Your task to perform on an android device: Show me productivity apps on the Play Store Image 0: 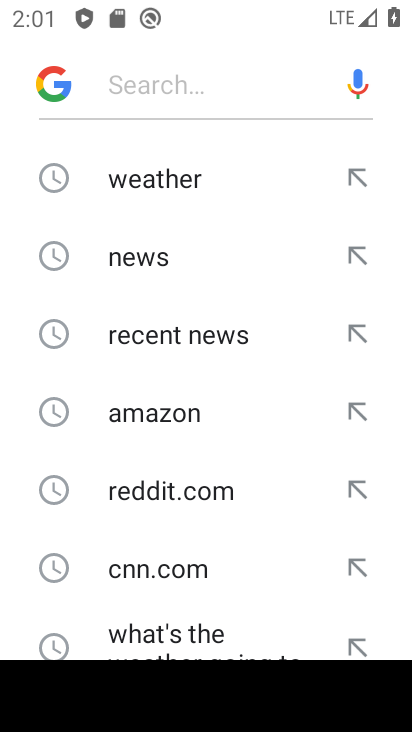
Step 0: press home button
Your task to perform on an android device: Show me productivity apps on the Play Store Image 1: 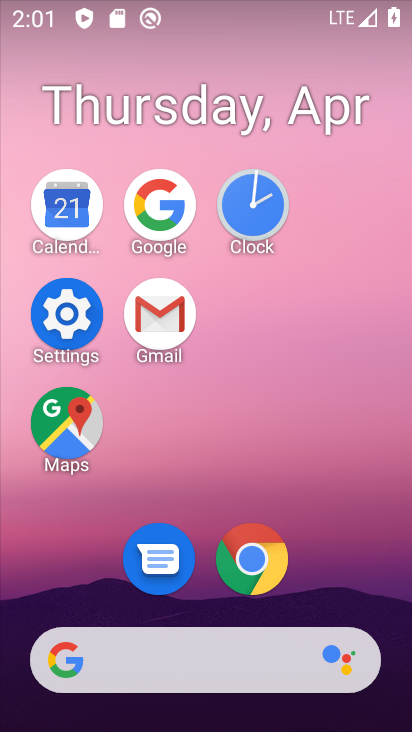
Step 1: drag from (207, 514) to (201, 77)
Your task to perform on an android device: Show me productivity apps on the Play Store Image 2: 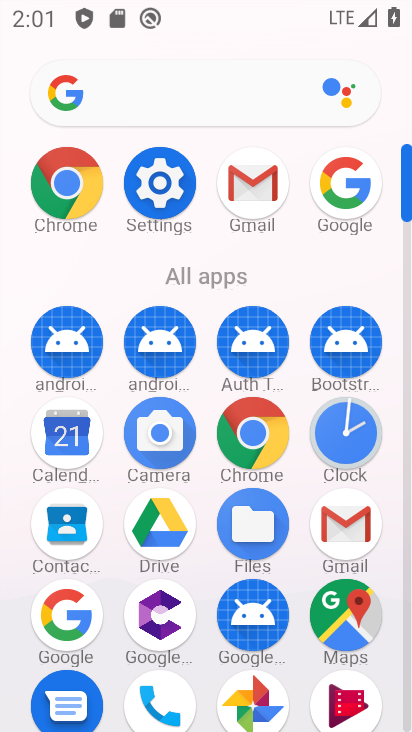
Step 2: drag from (198, 613) to (184, 129)
Your task to perform on an android device: Show me productivity apps on the Play Store Image 3: 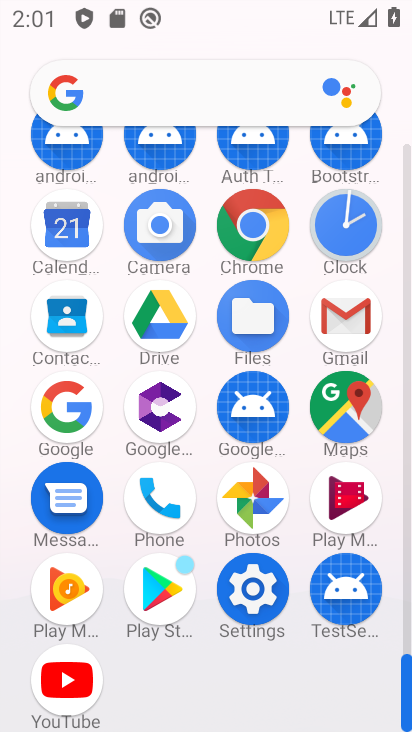
Step 3: click (178, 594)
Your task to perform on an android device: Show me productivity apps on the Play Store Image 4: 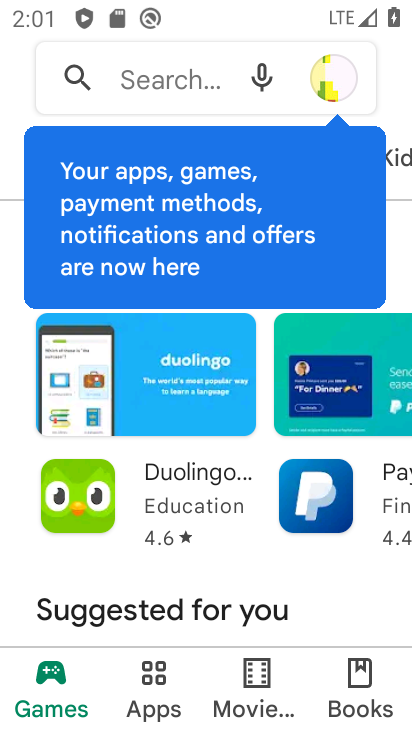
Step 4: click (169, 673)
Your task to perform on an android device: Show me productivity apps on the Play Store Image 5: 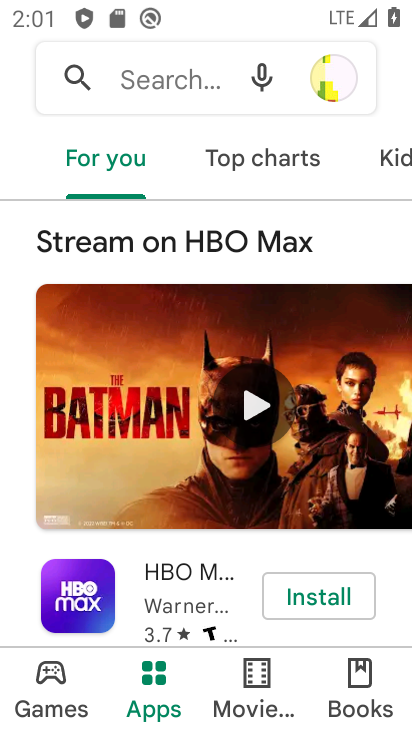
Step 5: drag from (366, 160) to (47, 141)
Your task to perform on an android device: Show me productivity apps on the Play Store Image 6: 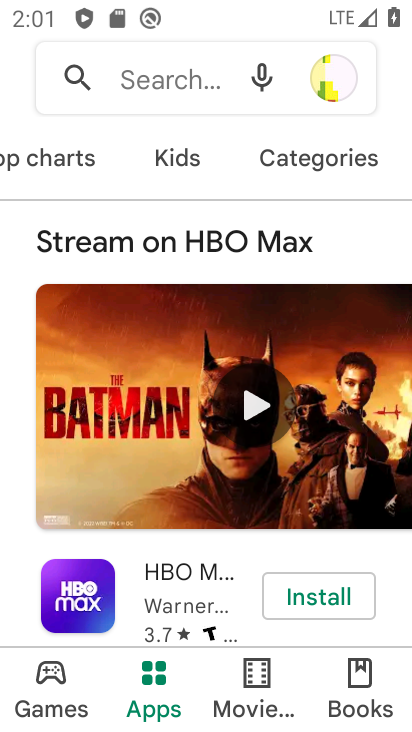
Step 6: click (342, 167)
Your task to perform on an android device: Show me productivity apps on the Play Store Image 7: 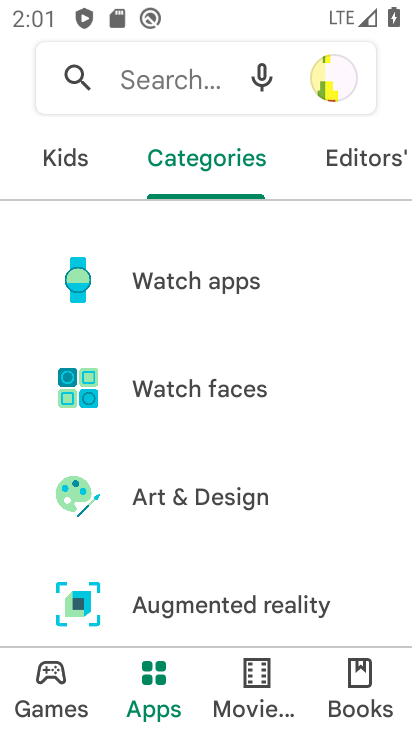
Step 7: drag from (239, 533) to (252, 87)
Your task to perform on an android device: Show me productivity apps on the Play Store Image 8: 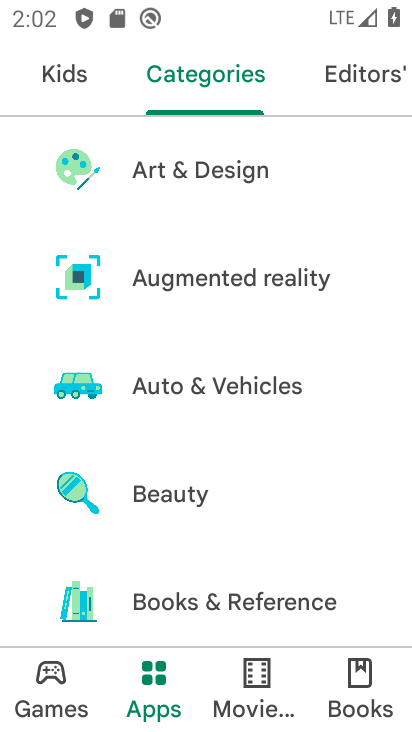
Step 8: drag from (277, 371) to (270, 86)
Your task to perform on an android device: Show me productivity apps on the Play Store Image 9: 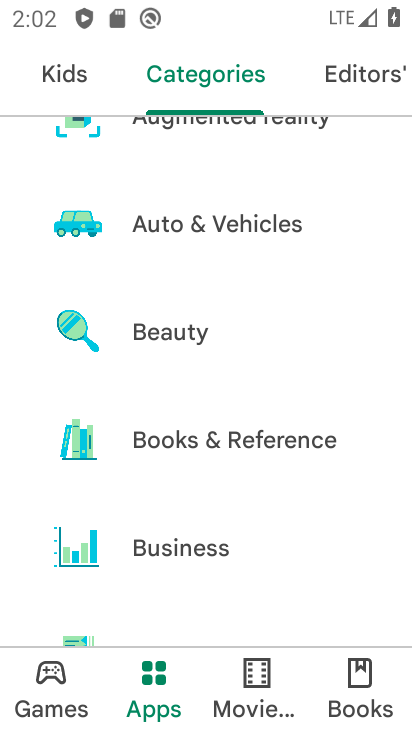
Step 9: drag from (290, 575) to (263, 156)
Your task to perform on an android device: Show me productivity apps on the Play Store Image 10: 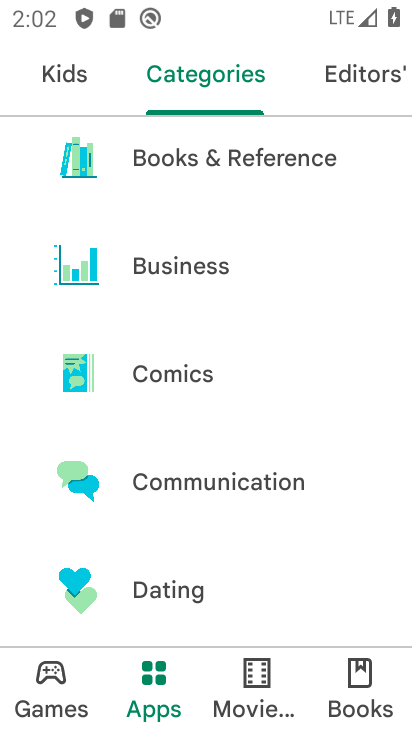
Step 10: drag from (247, 551) to (266, 141)
Your task to perform on an android device: Show me productivity apps on the Play Store Image 11: 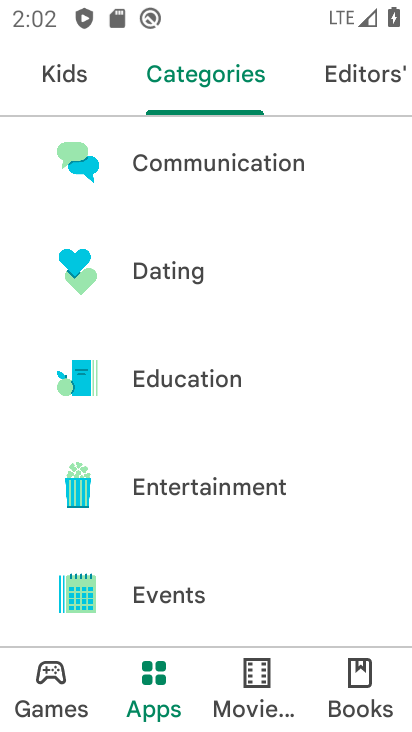
Step 11: drag from (237, 516) to (236, 108)
Your task to perform on an android device: Show me productivity apps on the Play Store Image 12: 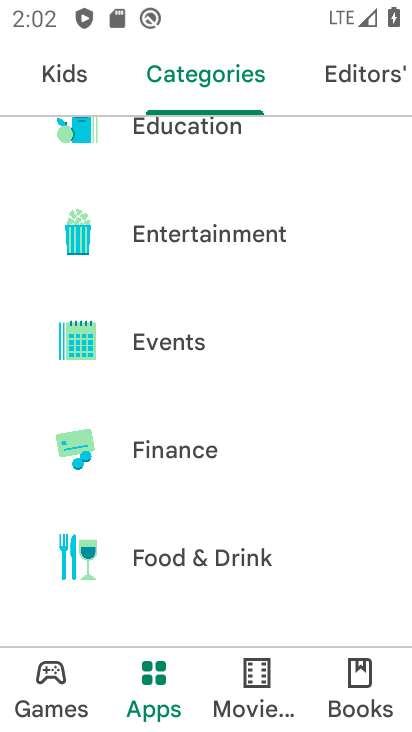
Step 12: drag from (257, 524) to (277, 128)
Your task to perform on an android device: Show me productivity apps on the Play Store Image 13: 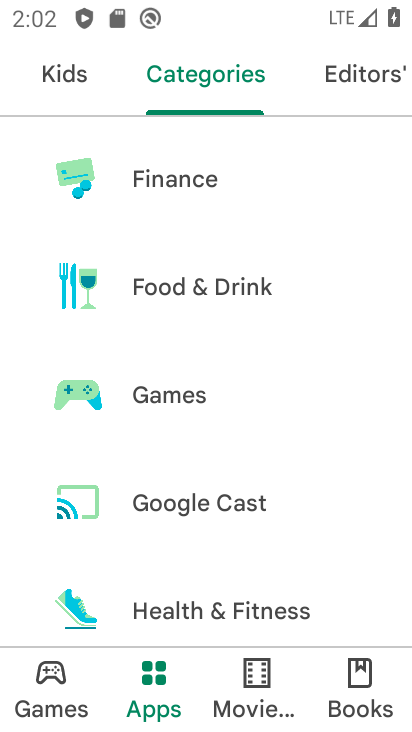
Step 13: drag from (265, 389) to (207, 59)
Your task to perform on an android device: Show me productivity apps on the Play Store Image 14: 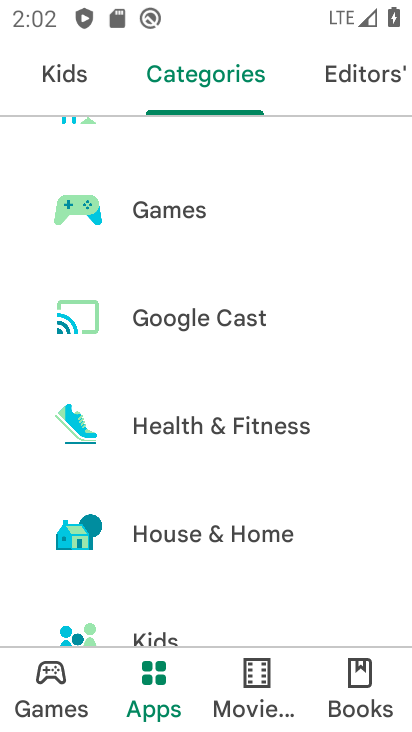
Step 14: drag from (227, 588) to (255, 109)
Your task to perform on an android device: Show me productivity apps on the Play Store Image 15: 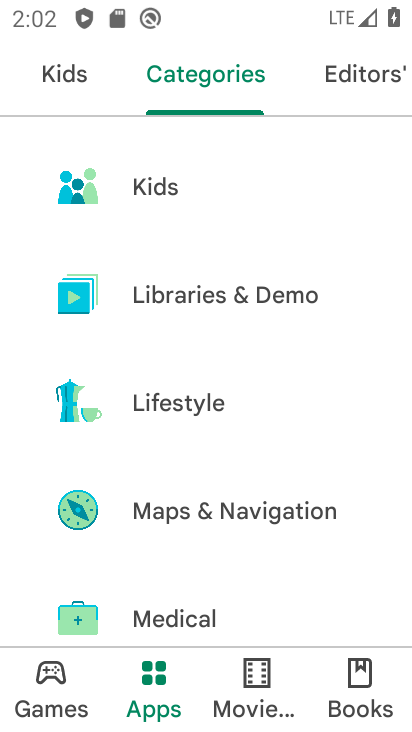
Step 15: drag from (271, 577) to (272, 164)
Your task to perform on an android device: Show me productivity apps on the Play Store Image 16: 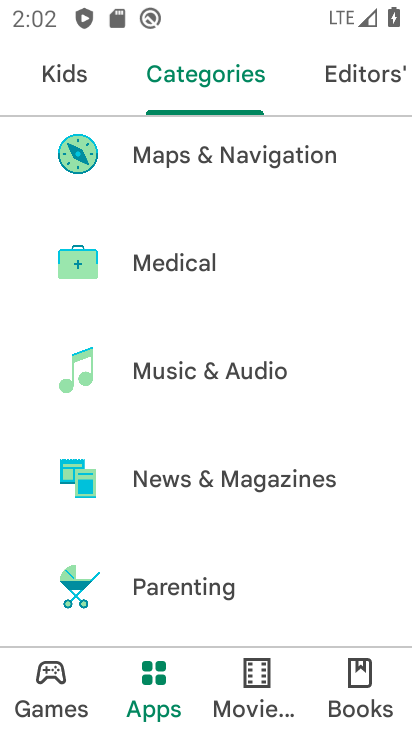
Step 16: drag from (278, 564) to (277, 195)
Your task to perform on an android device: Show me productivity apps on the Play Store Image 17: 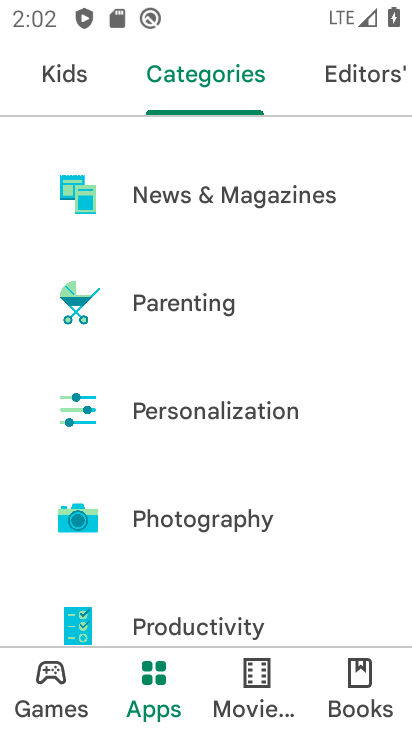
Step 17: click (255, 619)
Your task to perform on an android device: Show me productivity apps on the Play Store Image 18: 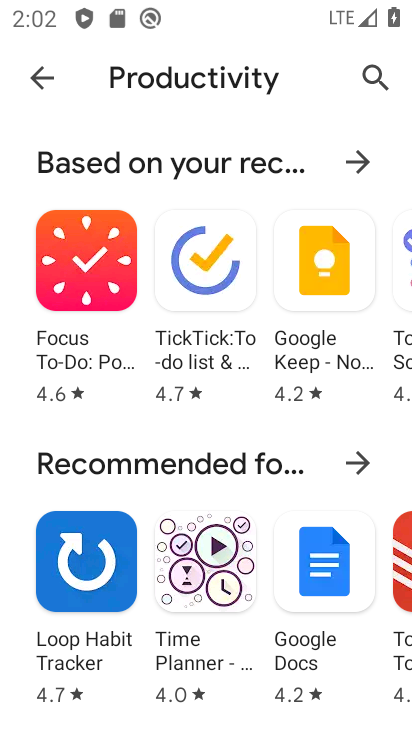
Step 18: task complete